Your task to perform on an android device: change notification settings in the gmail app Image 0: 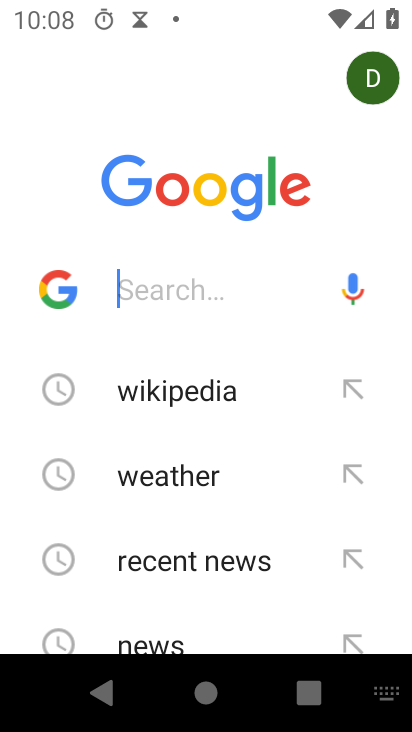
Step 0: press back button
Your task to perform on an android device: change notification settings in the gmail app Image 1: 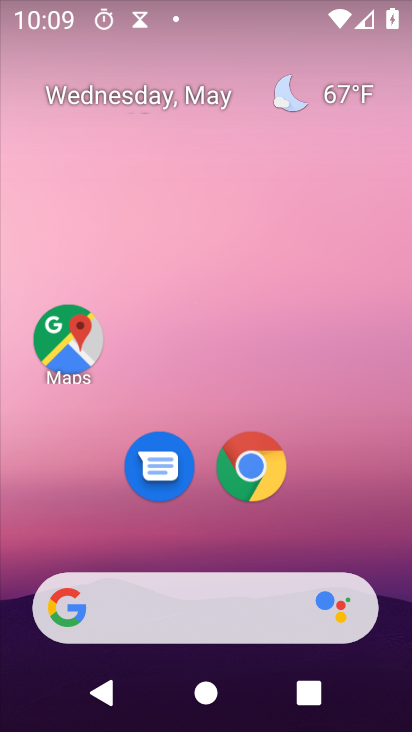
Step 1: drag from (300, 44) to (214, 114)
Your task to perform on an android device: change notification settings in the gmail app Image 2: 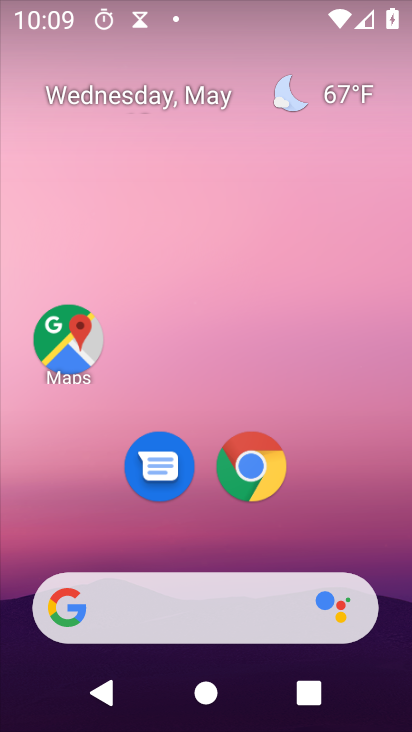
Step 2: drag from (219, 515) to (234, 32)
Your task to perform on an android device: change notification settings in the gmail app Image 3: 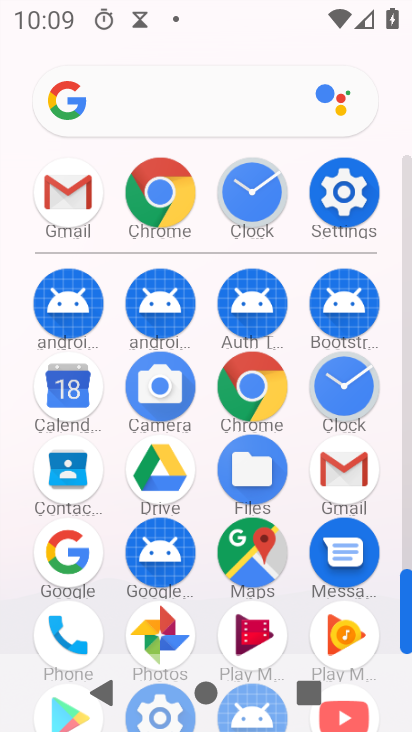
Step 3: drag from (211, 463) to (172, 92)
Your task to perform on an android device: change notification settings in the gmail app Image 4: 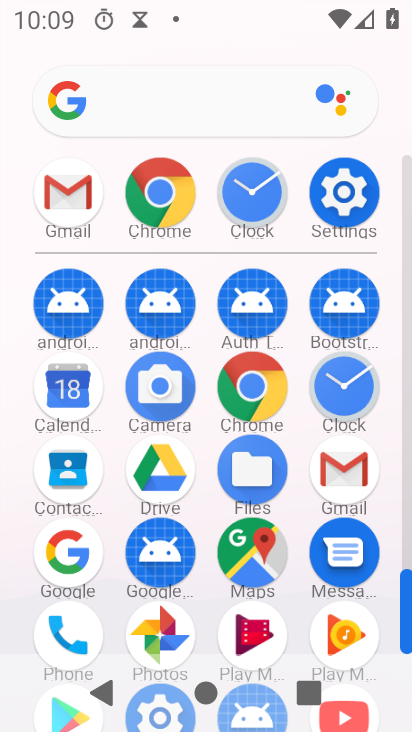
Step 4: click (73, 231)
Your task to perform on an android device: change notification settings in the gmail app Image 5: 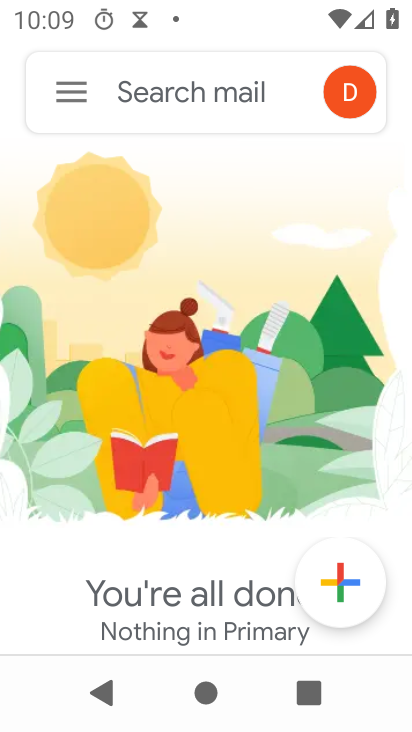
Step 5: click (70, 100)
Your task to perform on an android device: change notification settings in the gmail app Image 6: 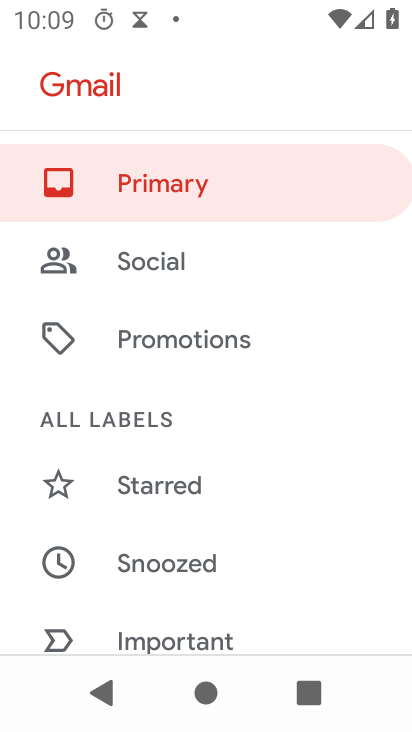
Step 6: drag from (203, 583) to (183, 322)
Your task to perform on an android device: change notification settings in the gmail app Image 7: 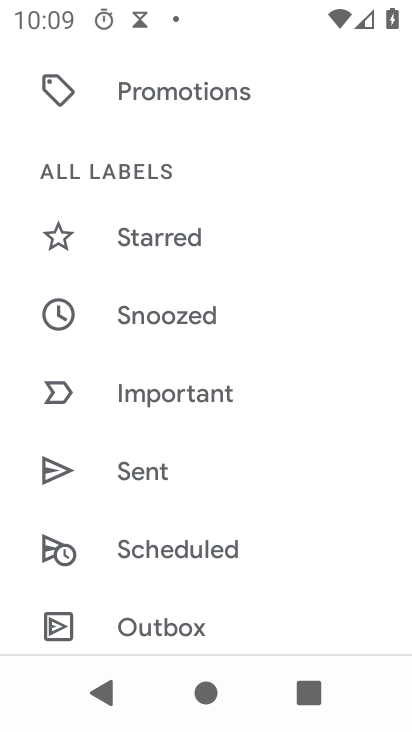
Step 7: drag from (191, 609) to (224, 257)
Your task to perform on an android device: change notification settings in the gmail app Image 8: 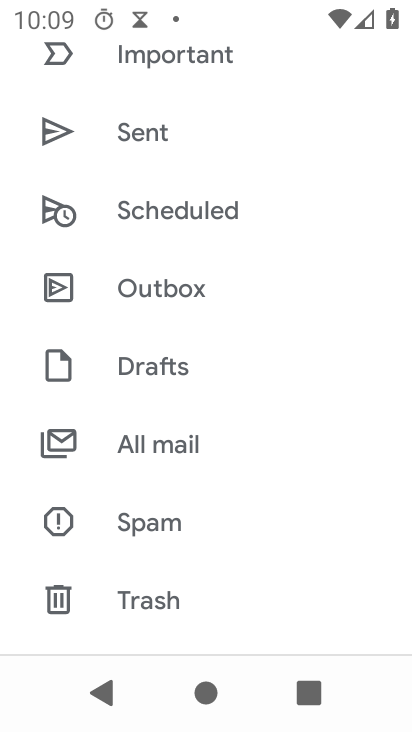
Step 8: drag from (222, 548) to (177, 211)
Your task to perform on an android device: change notification settings in the gmail app Image 9: 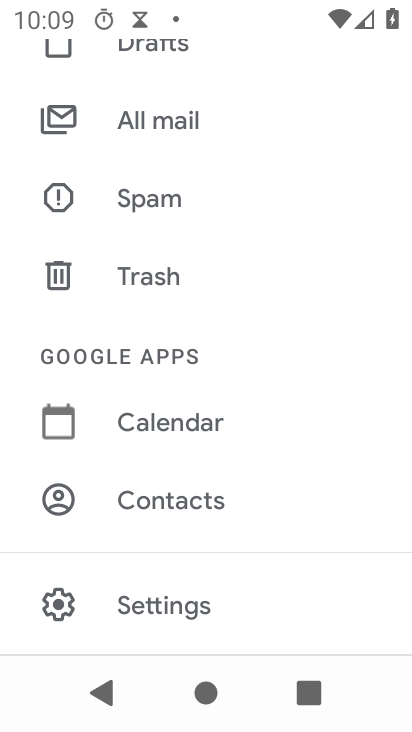
Step 9: click (152, 620)
Your task to perform on an android device: change notification settings in the gmail app Image 10: 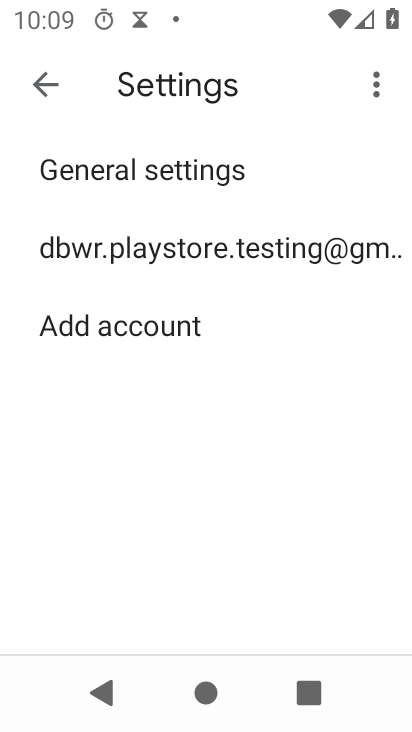
Step 10: click (202, 241)
Your task to perform on an android device: change notification settings in the gmail app Image 11: 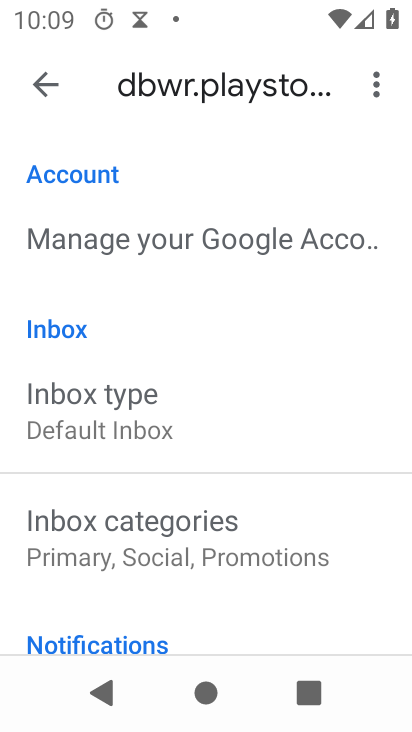
Step 11: drag from (139, 598) to (147, 394)
Your task to perform on an android device: change notification settings in the gmail app Image 12: 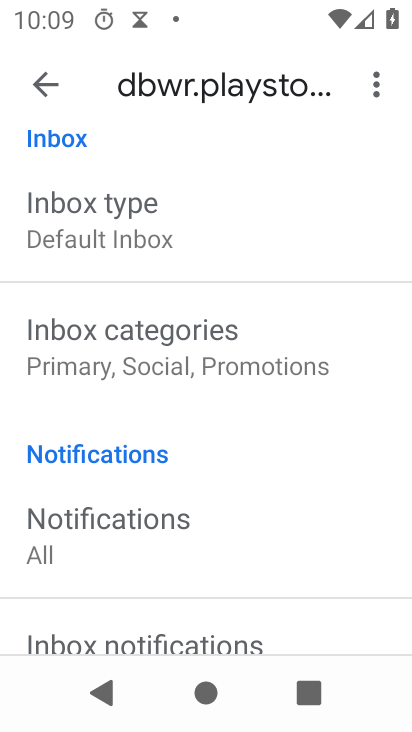
Step 12: click (122, 588)
Your task to perform on an android device: change notification settings in the gmail app Image 13: 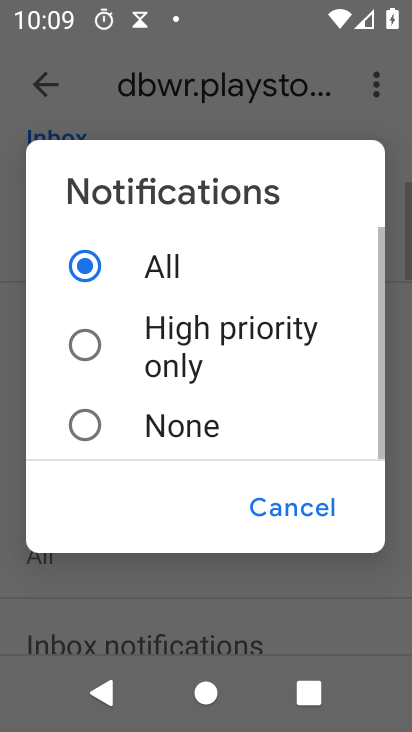
Step 13: click (93, 435)
Your task to perform on an android device: change notification settings in the gmail app Image 14: 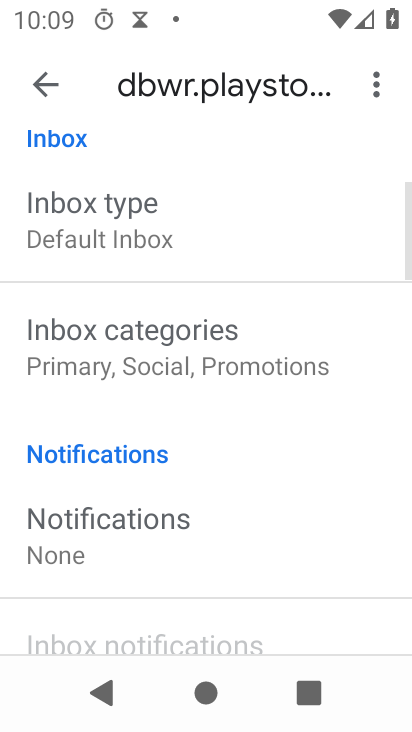
Step 14: task complete